Your task to perform on an android device: turn on translation in the chrome app Image 0: 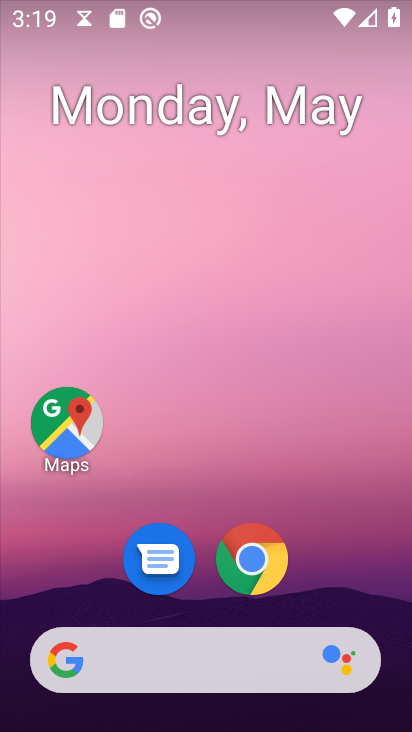
Step 0: click (230, 249)
Your task to perform on an android device: turn on translation in the chrome app Image 1: 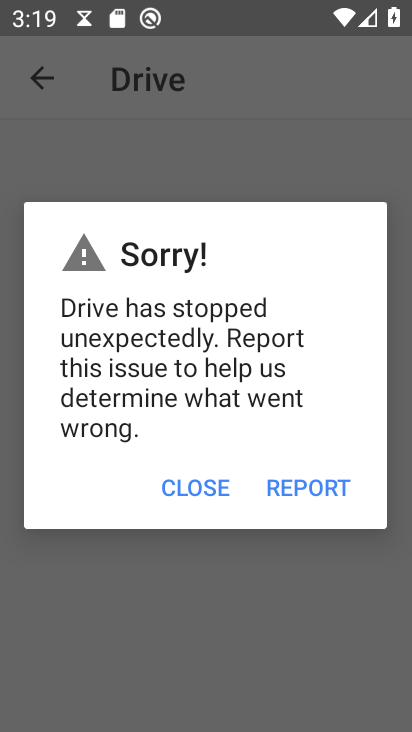
Step 1: press home button
Your task to perform on an android device: turn on translation in the chrome app Image 2: 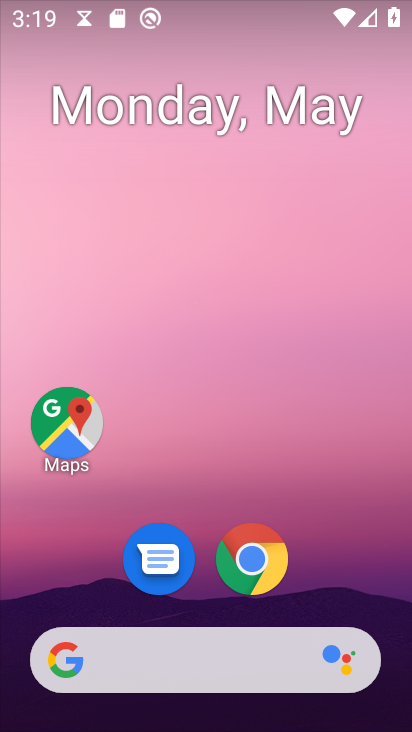
Step 2: click (232, 553)
Your task to perform on an android device: turn on translation in the chrome app Image 3: 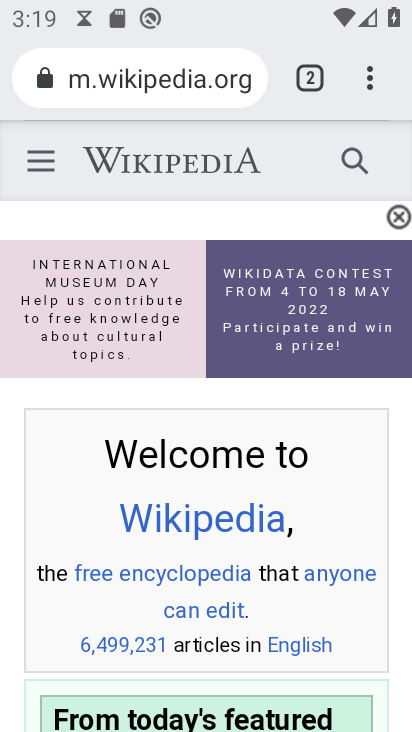
Step 3: click (360, 80)
Your task to perform on an android device: turn on translation in the chrome app Image 4: 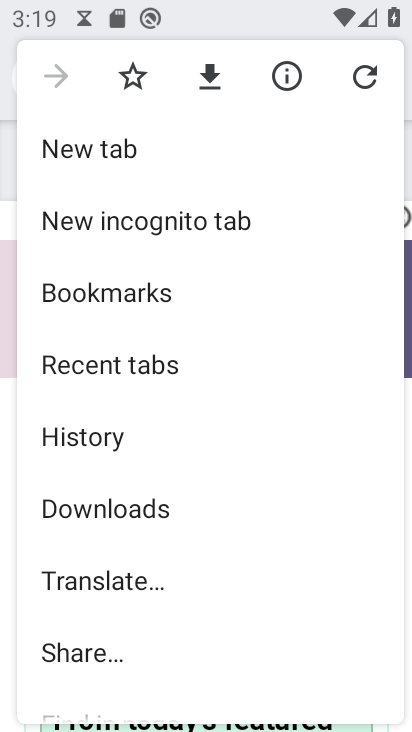
Step 4: drag from (88, 637) to (186, 241)
Your task to perform on an android device: turn on translation in the chrome app Image 5: 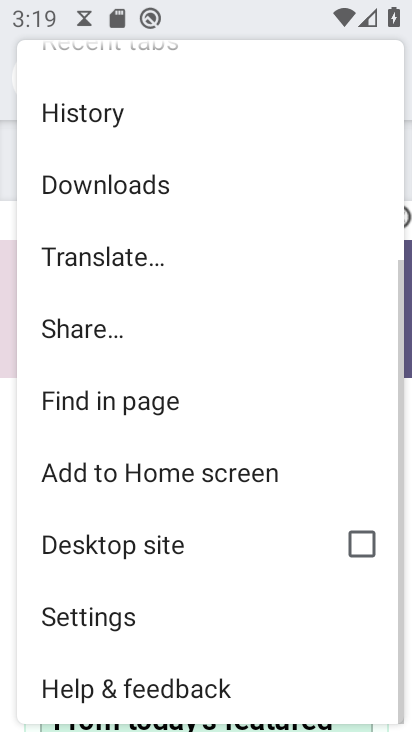
Step 5: click (99, 630)
Your task to perform on an android device: turn on translation in the chrome app Image 6: 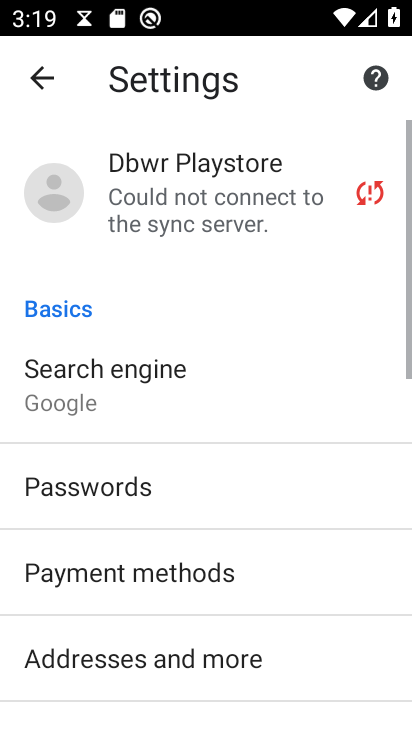
Step 6: drag from (153, 618) to (243, 239)
Your task to perform on an android device: turn on translation in the chrome app Image 7: 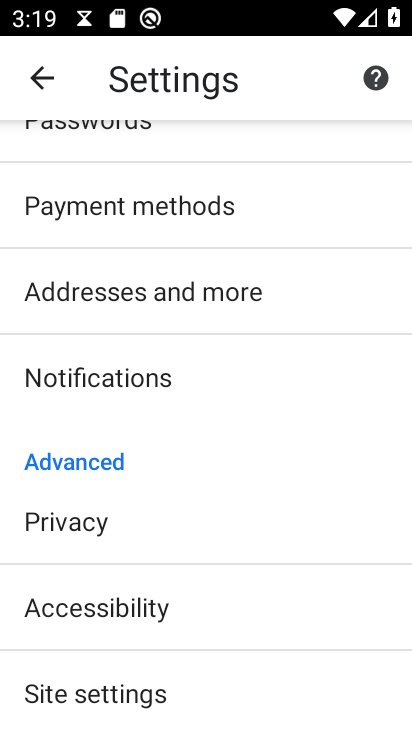
Step 7: drag from (106, 632) to (242, 189)
Your task to perform on an android device: turn on translation in the chrome app Image 8: 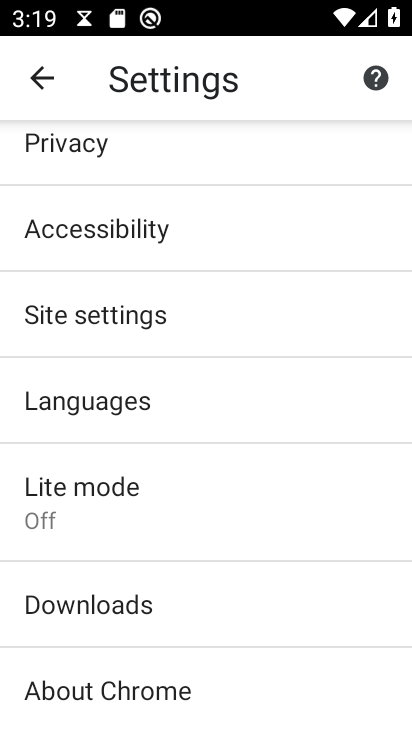
Step 8: drag from (114, 515) to (169, 379)
Your task to perform on an android device: turn on translation in the chrome app Image 9: 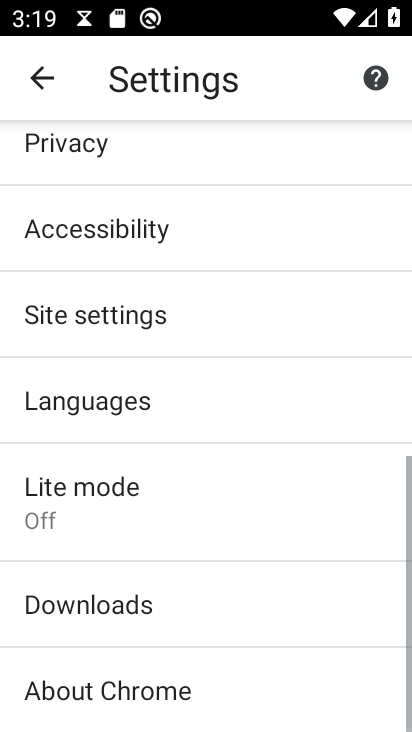
Step 9: click (169, 375)
Your task to perform on an android device: turn on translation in the chrome app Image 10: 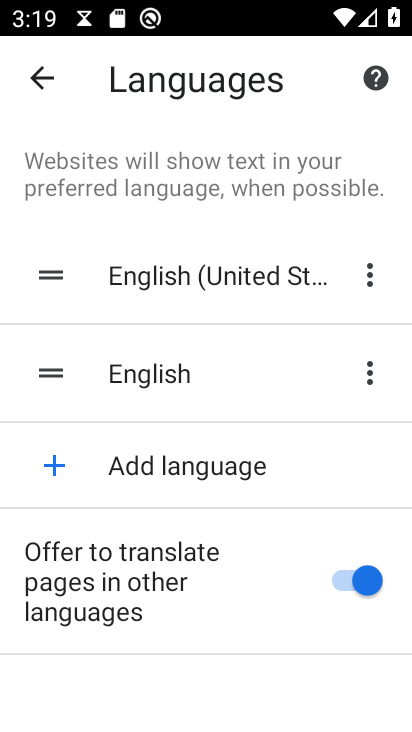
Step 10: task complete